Your task to perform on an android device: Open network settings Image 0: 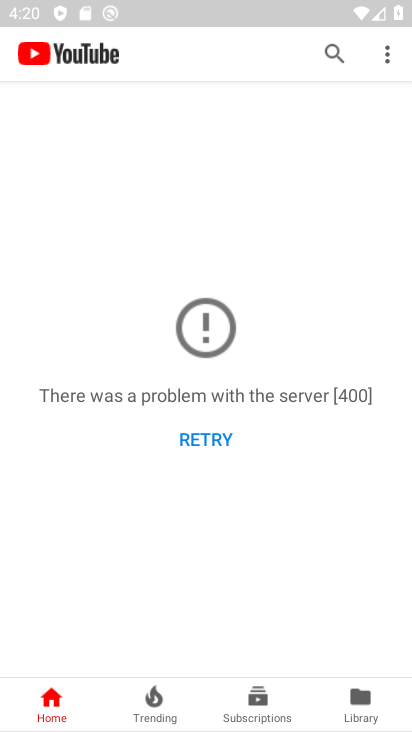
Step 0: press home button
Your task to perform on an android device: Open network settings Image 1: 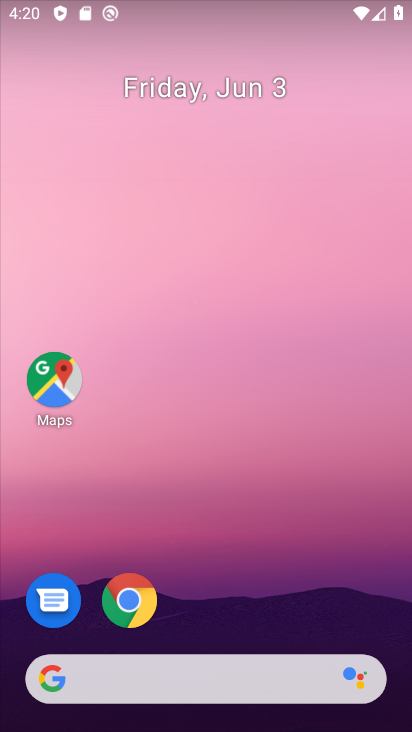
Step 1: drag from (243, 580) to (299, 104)
Your task to perform on an android device: Open network settings Image 2: 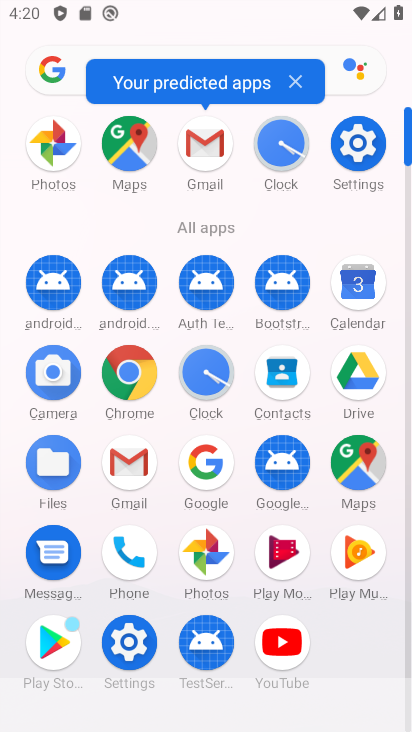
Step 2: click (134, 645)
Your task to perform on an android device: Open network settings Image 3: 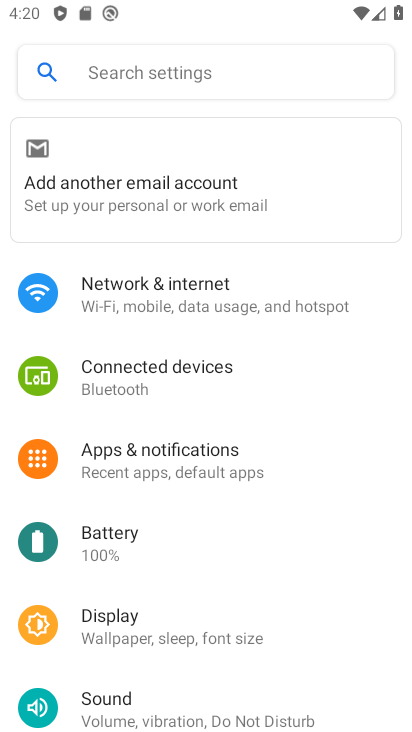
Step 3: click (207, 297)
Your task to perform on an android device: Open network settings Image 4: 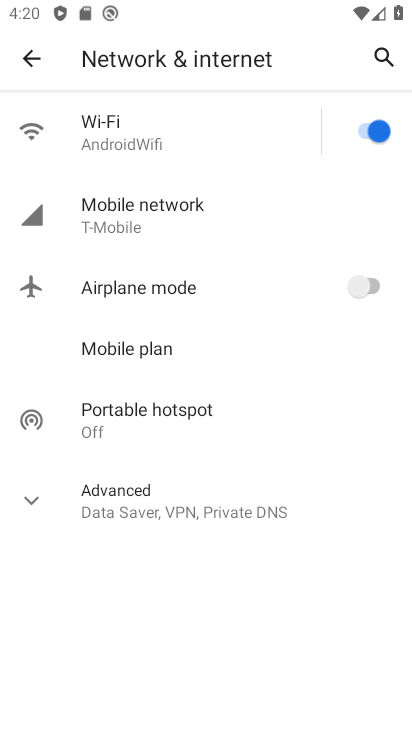
Step 4: task complete